Your task to perform on an android device: empty trash in google photos Image 0: 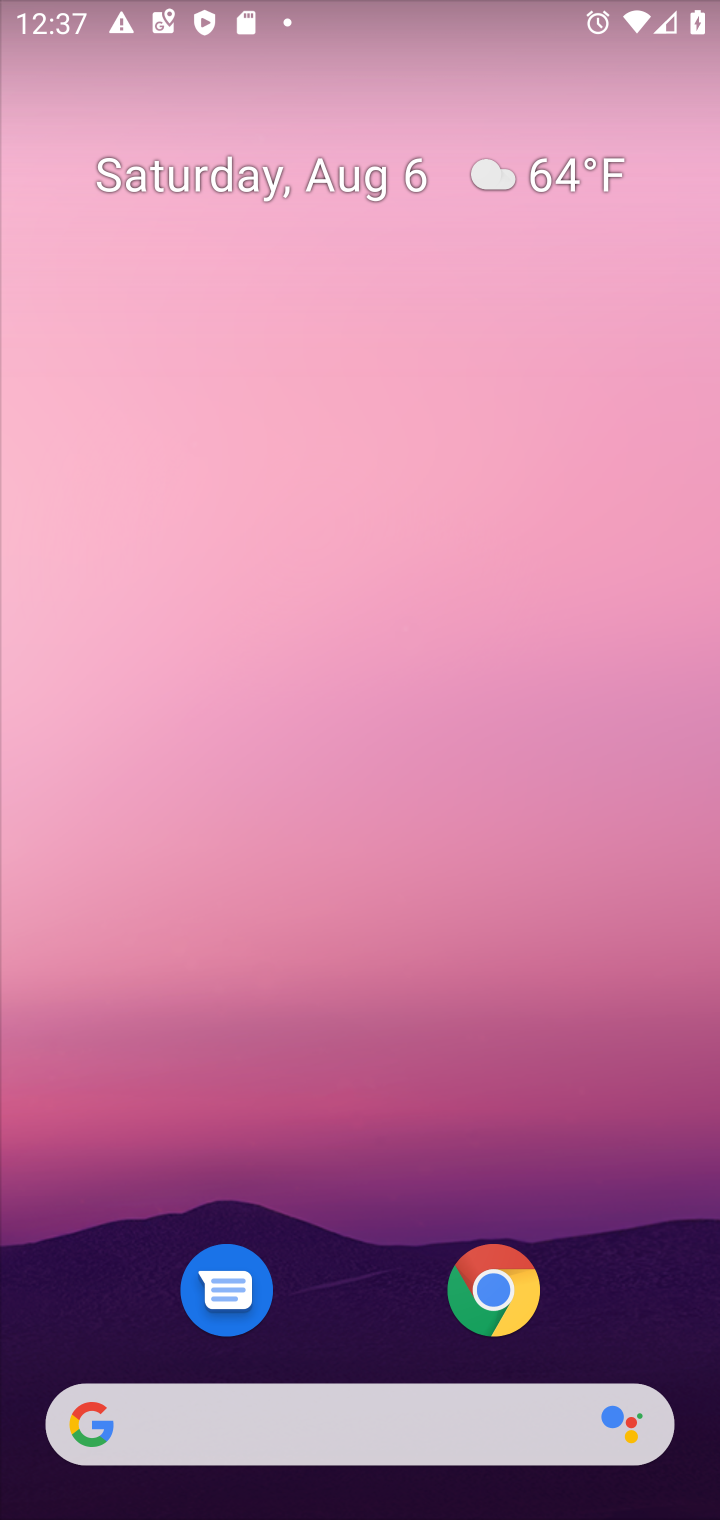
Step 0: drag from (367, 274) to (365, 81)
Your task to perform on an android device: empty trash in google photos Image 1: 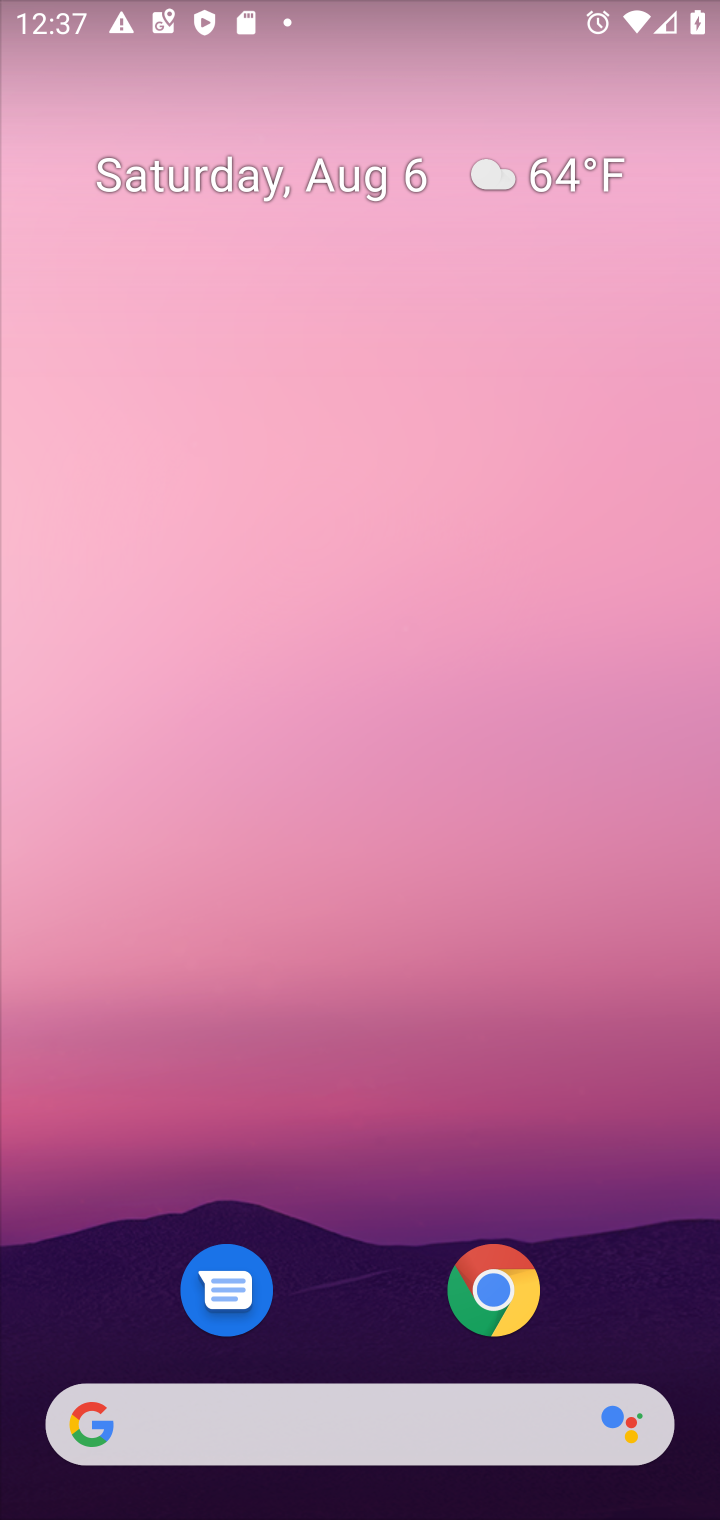
Step 1: drag from (384, 1263) to (363, 92)
Your task to perform on an android device: empty trash in google photos Image 2: 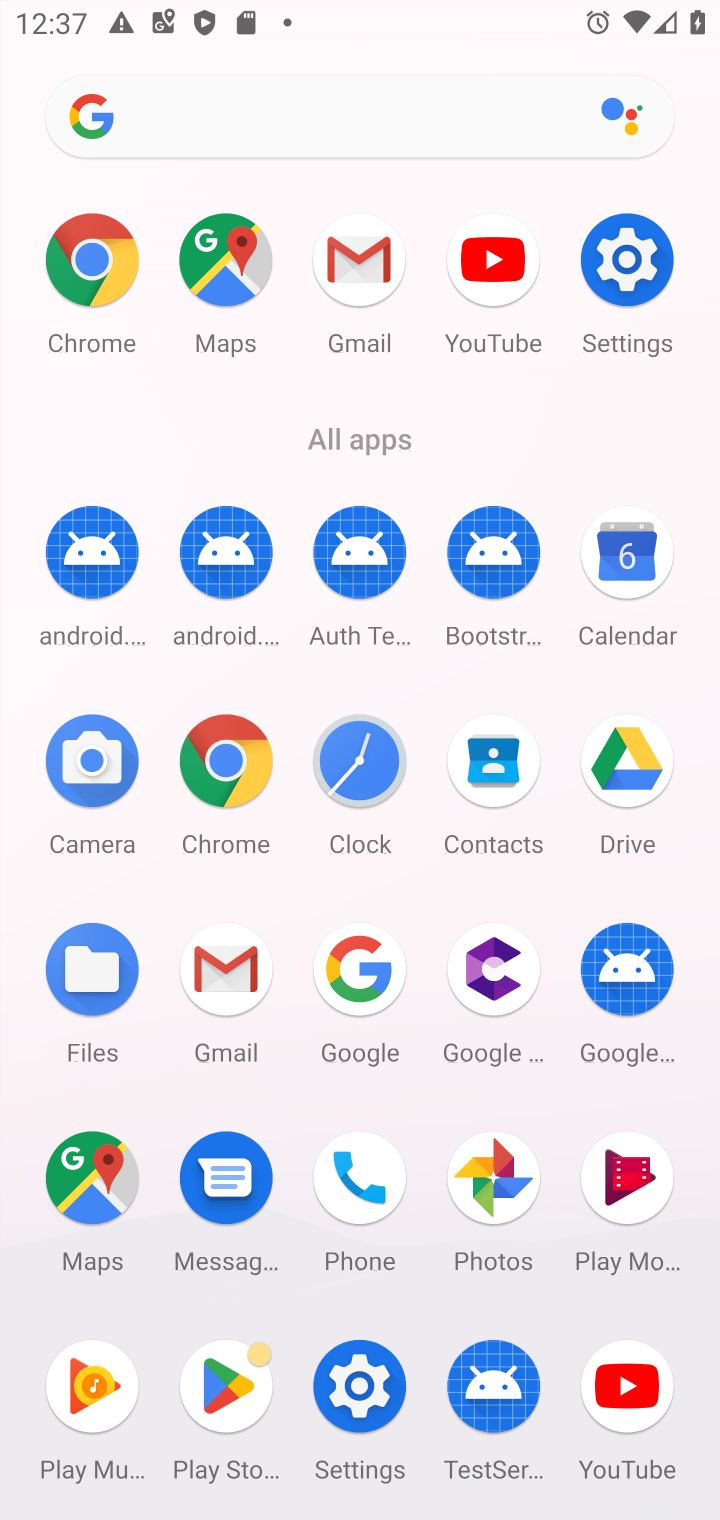
Step 2: click (503, 1164)
Your task to perform on an android device: empty trash in google photos Image 3: 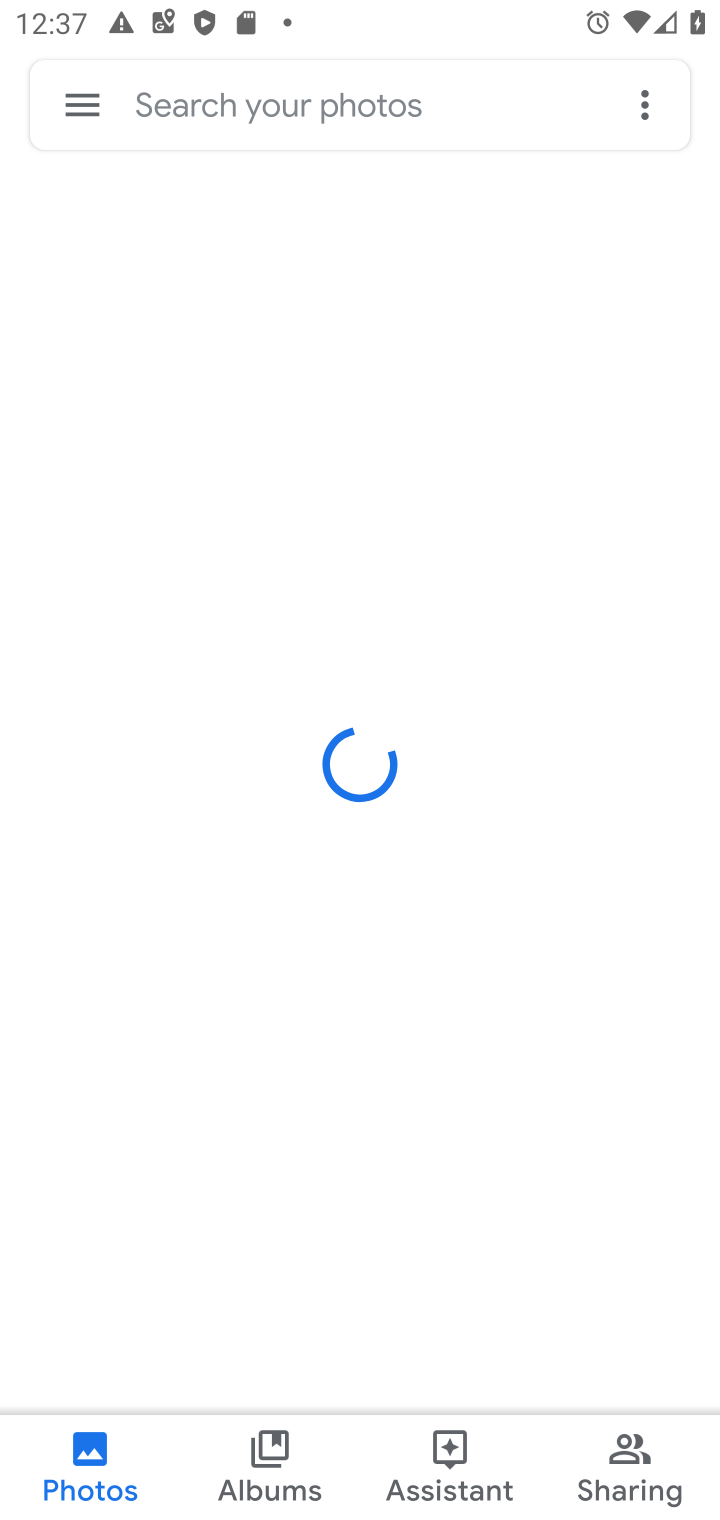
Step 3: click (71, 96)
Your task to perform on an android device: empty trash in google photos Image 4: 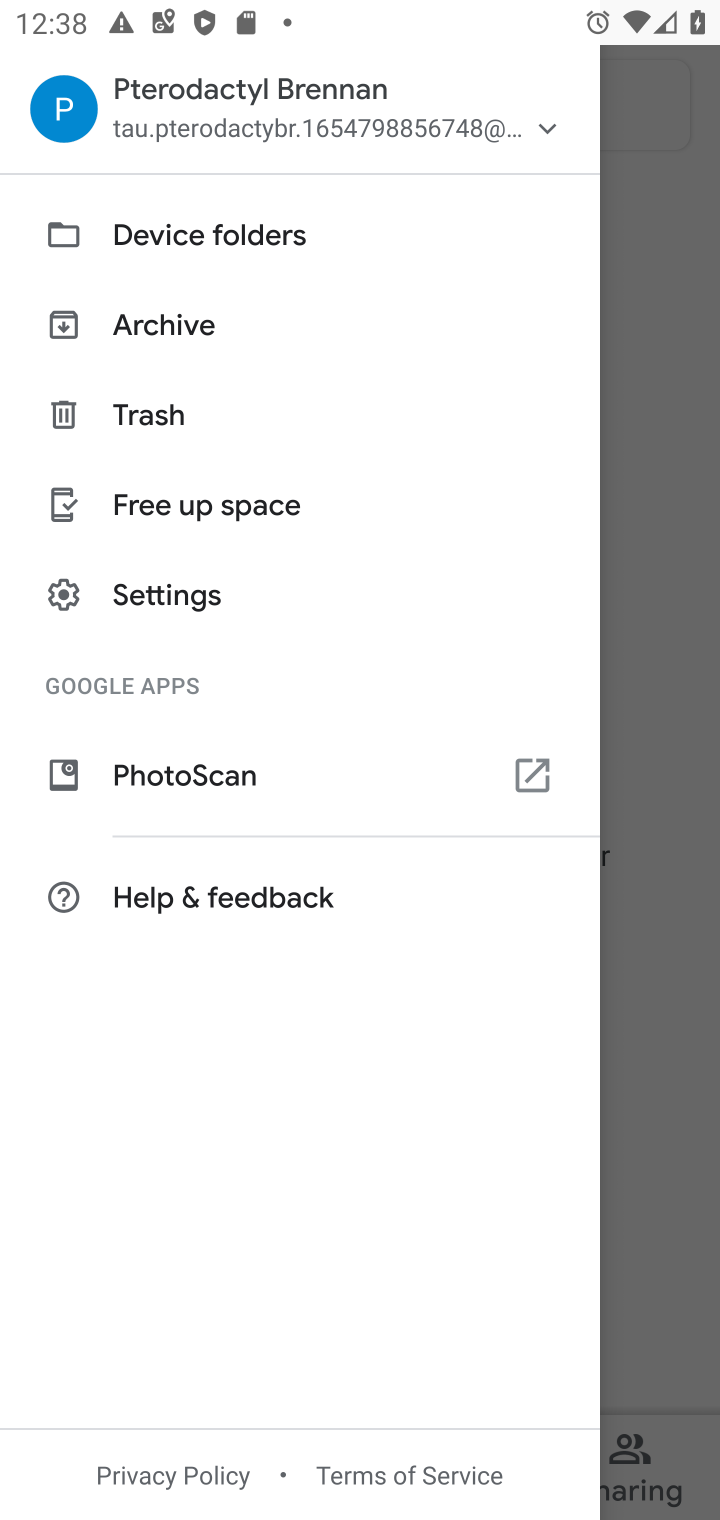
Step 4: click (121, 387)
Your task to perform on an android device: empty trash in google photos Image 5: 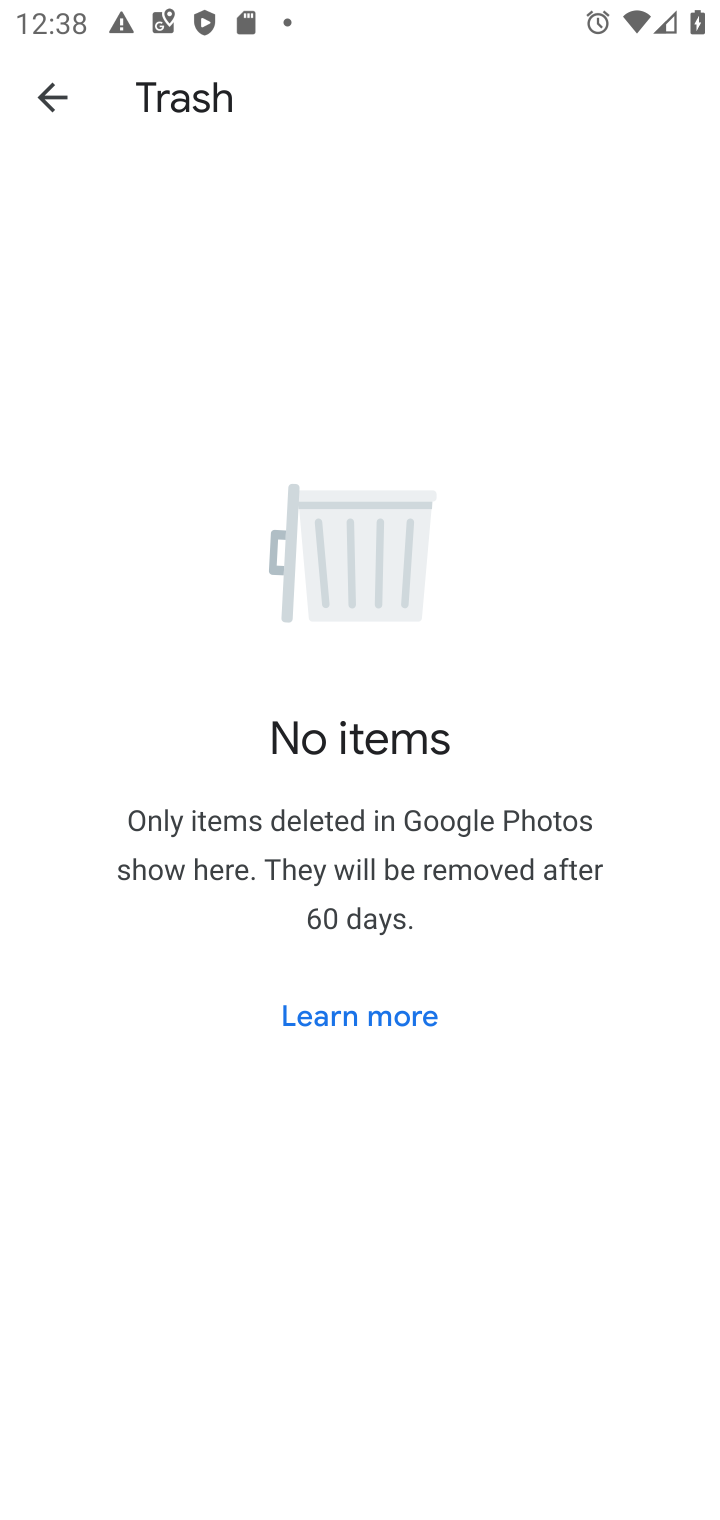
Step 5: task complete